Your task to perform on an android device: Go to CNN.com Image 0: 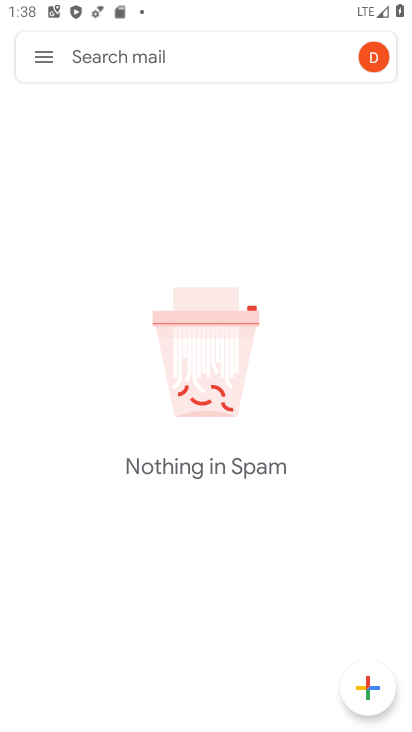
Step 0: press home button
Your task to perform on an android device: Go to CNN.com Image 1: 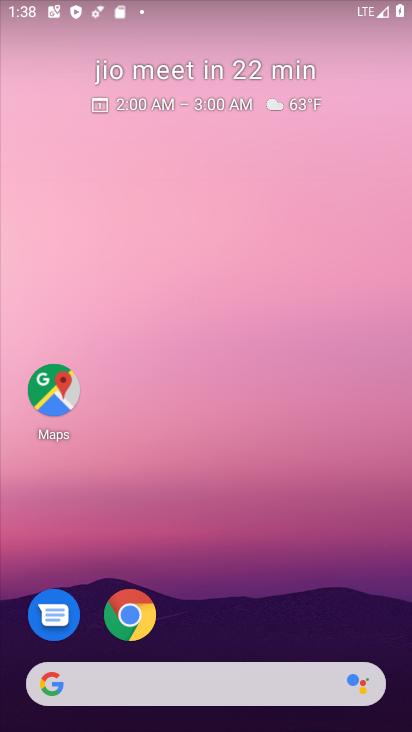
Step 1: click (155, 692)
Your task to perform on an android device: Go to CNN.com Image 2: 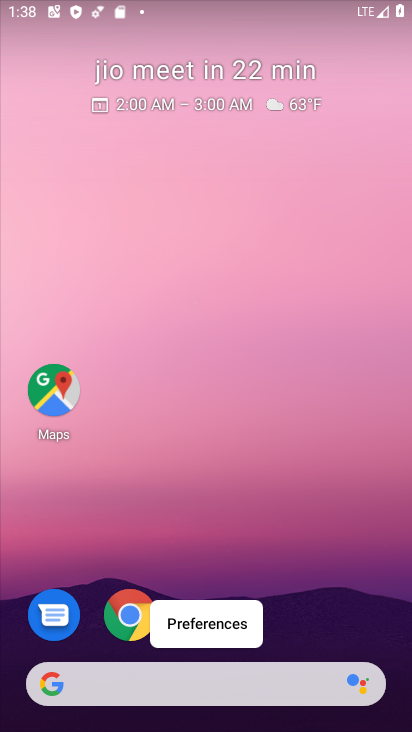
Step 2: click (154, 691)
Your task to perform on an android device: Go to CNN.com Image 3: 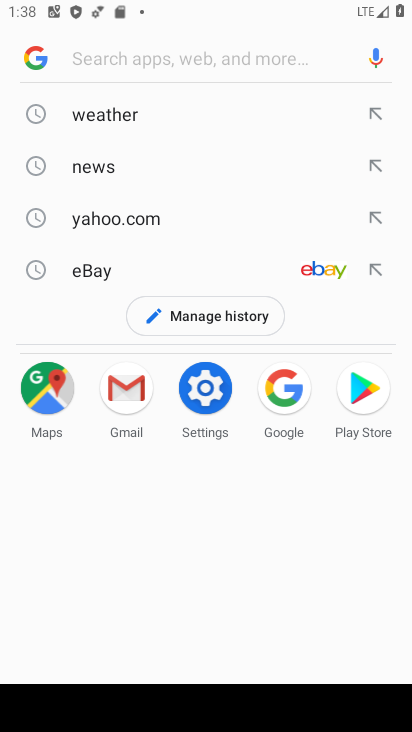
Step 3: type "CNN.com"
Your task to perform on an android device: Go to CNN.com Image 4: 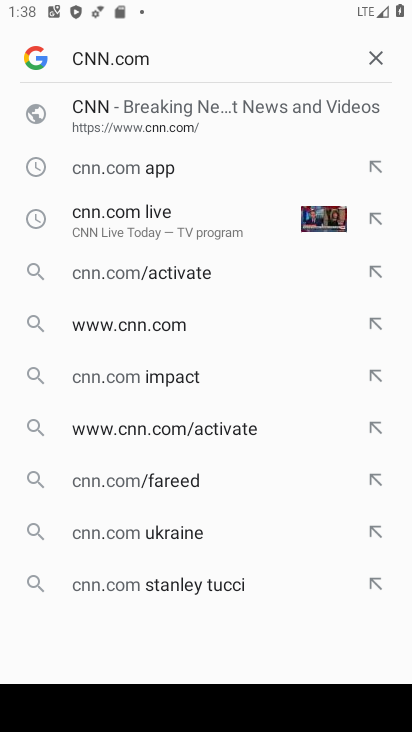
Step 4: click (173, 118)
Your task to perform on an android device: Go to CNN.com Image 5: 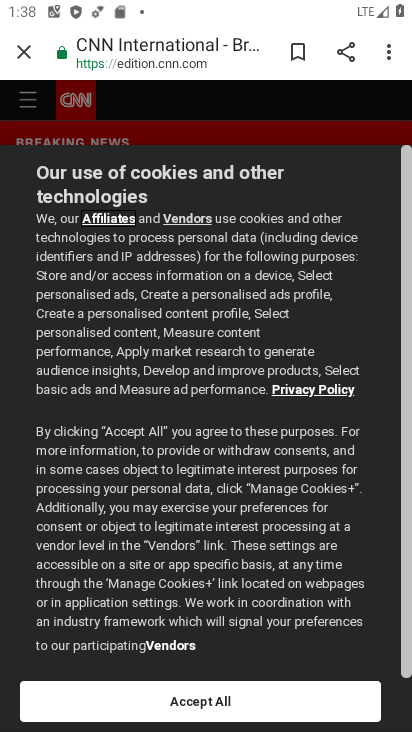
Step 5: click (180, 704)
Your task to perform on an android device: Go to CNN.com Image 6: 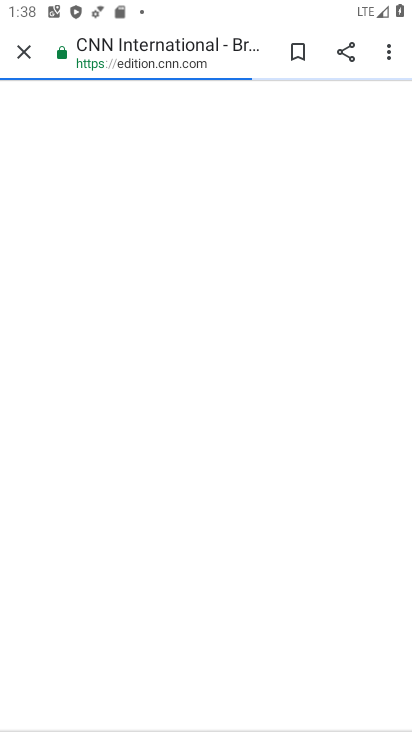
Step 6: task complete